Your task to perform on an android device: Go to Google maps Image 0: 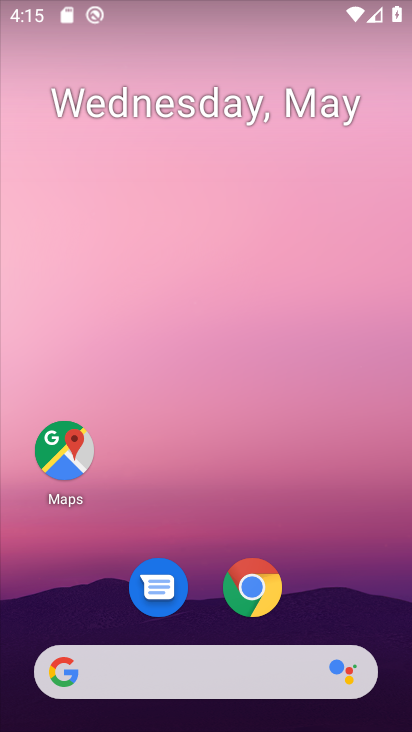
Step 0: click (89, 450)
Your task to perform on an android device: Go to Google maps Image 1: 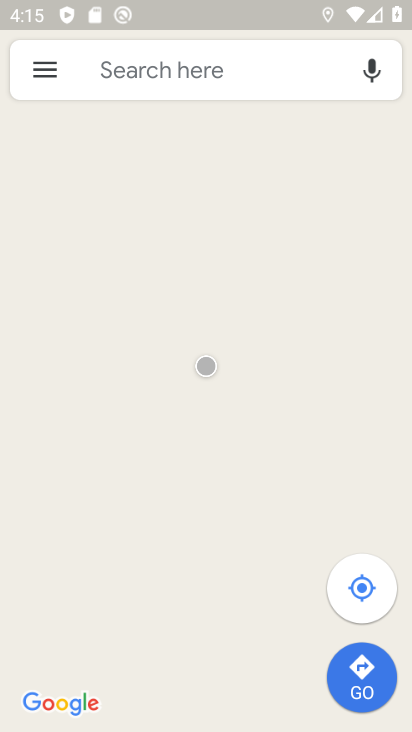
Step 1: task complete